Your task to perform on an android device: Set the phone to "Do not disturb". Image 0: 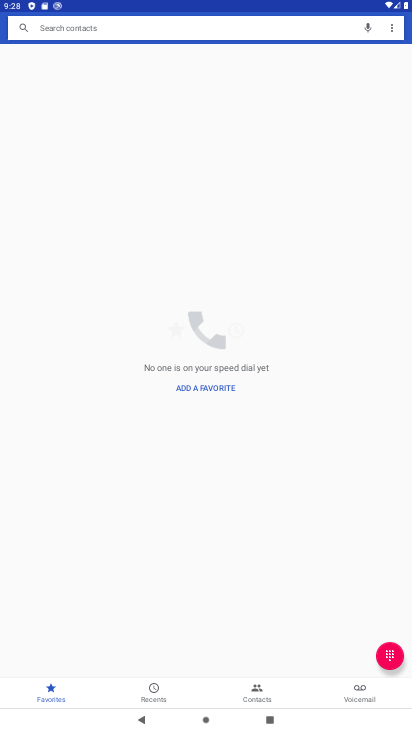
Step 0: press home button
Your task to perform on an android device: Set the phone to "Do not disturb". Image 1: 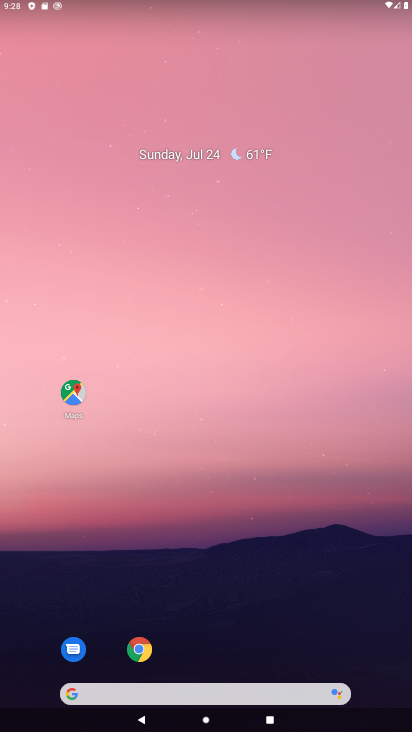
Step 1: drag from (305, 681) to (382, 20)
Your task to perform on an android device: Set the phone to "Do not disturb". Image 2: 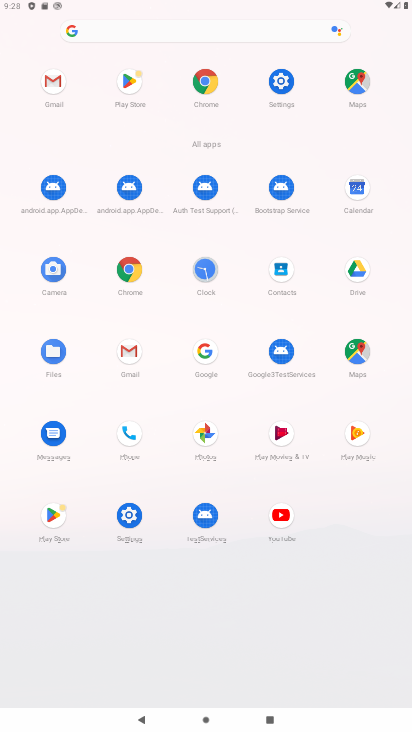
Step 2: press home button
Your task to perform on an android device: Set the phone to "Do not disturb". Image 3: 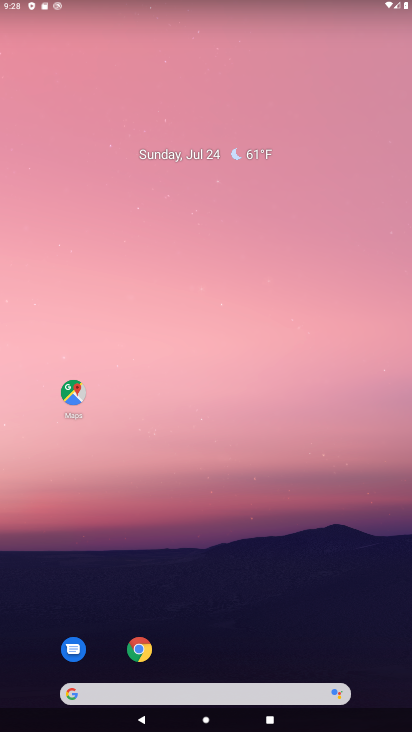
Step 3: drag from (121, 6) to (240, 712)
Your task to perform on an android device: Set the phone to "Do not disturb". Image 4: 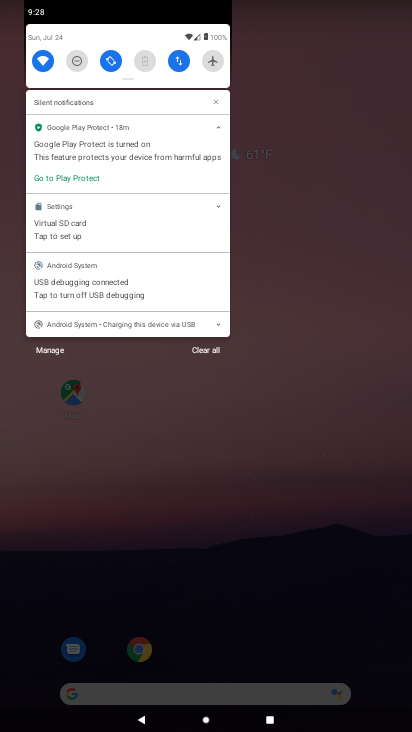
Step 4: click (78, 64)
Your task to perform on an android device: Set the phone to "Do not disturb". Image 5: 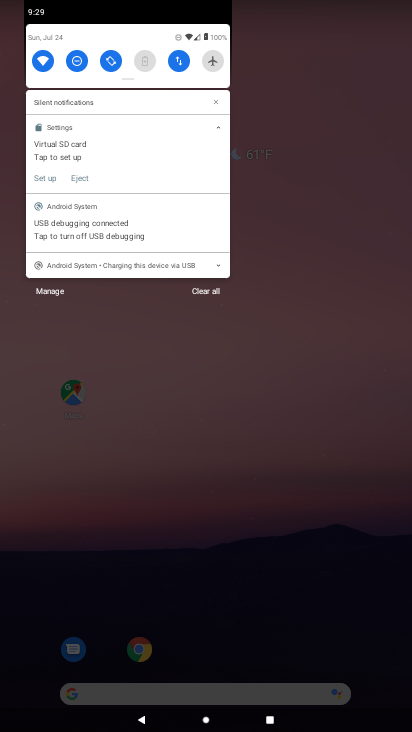
Step 5: task complete